Your task to perform on an android device: Open settings on Google Maps Image 0: 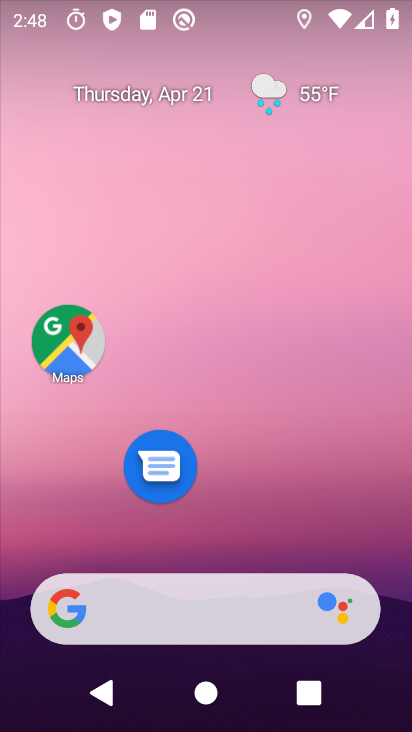
Step 0: drag from (257, 577) to (280, 53)
Your task to perform on an android device: Open settings on Google Maps Image 1: 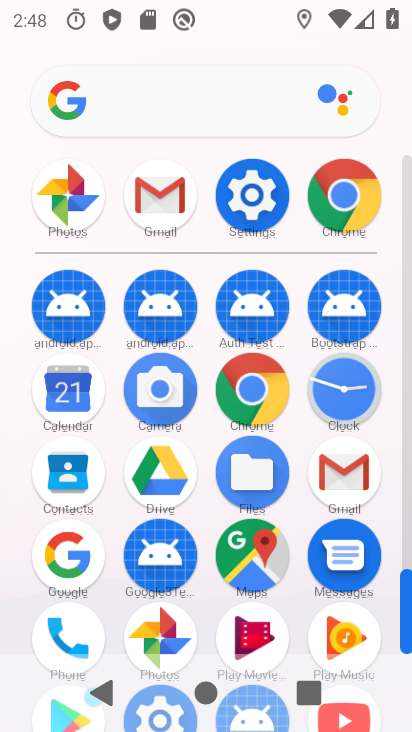
Step 1: click (245, 578)
Your task to perform on an android device: Open settings on Google Maps Image 2: 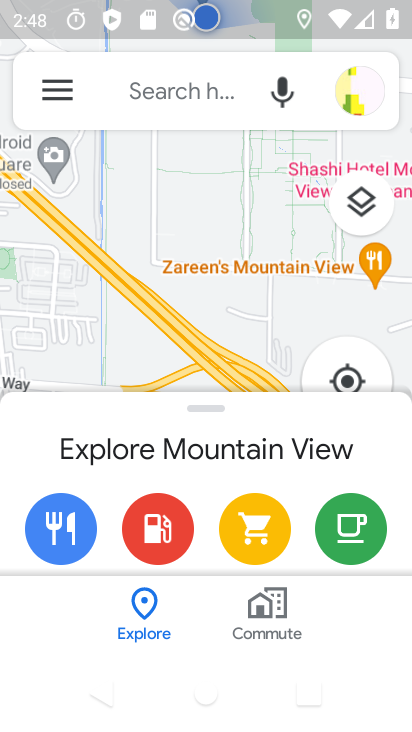
Step 2: click (70, 97)
Your task to perform on an android device: Open settings on Google Maps Image 3: 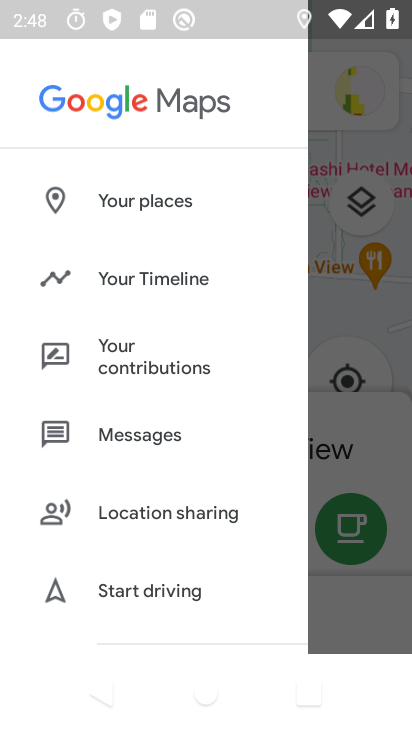
Step 3: drag from (192, 557) to (129, 252)
Your task to perform on an android device: Open settings on Google Maps Image 4: 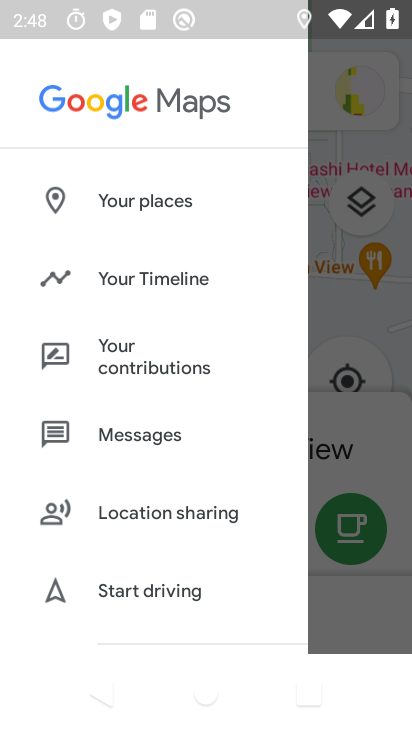
Step 4: drag from (236, 612) to (179, 162)
Your task to perform on an android device: Open settings on Google Maps Image 5: 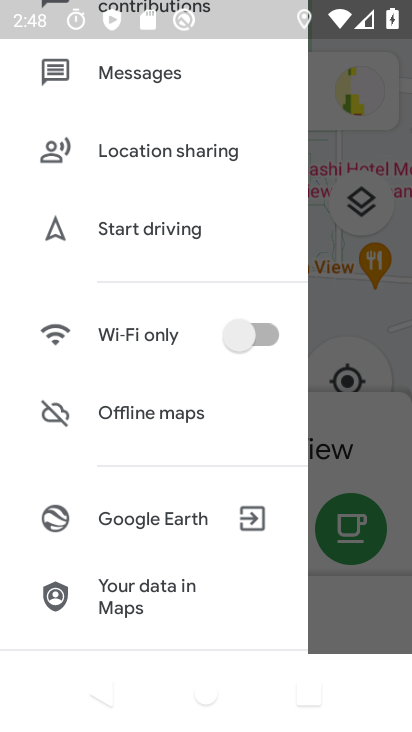
Step 5: drag from (201, 610) to (183, 219)
Your task to perform on an android device: Open settings on Google Maps Image 6: 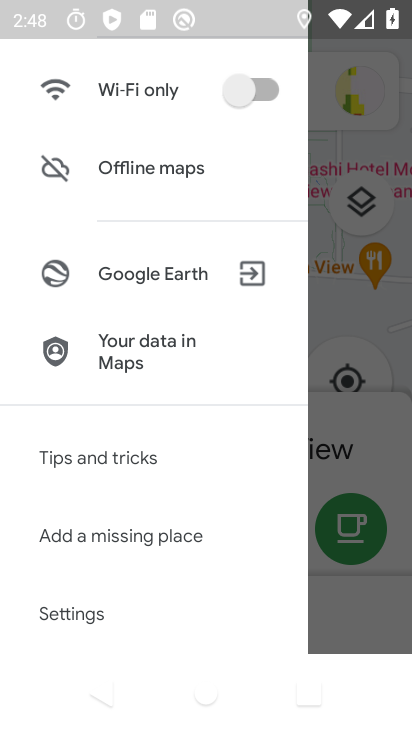
Step 6: click (63, 614)
Your task to perform on an android device: Open settings on Google Maps Image 7: 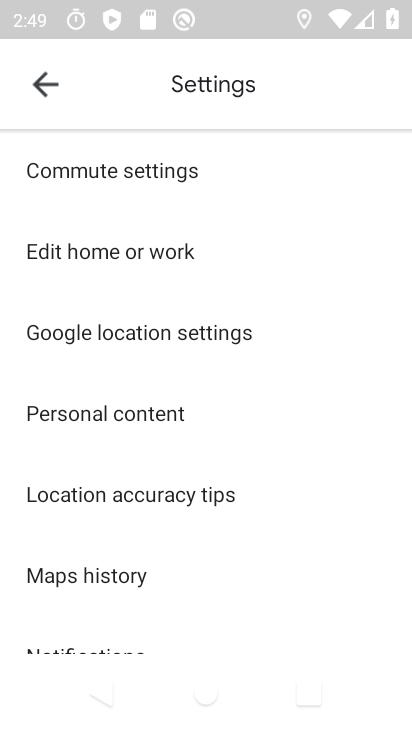
Step 7: task complete